Your task to perform on an android device: Go to ESPN.com Image 0: 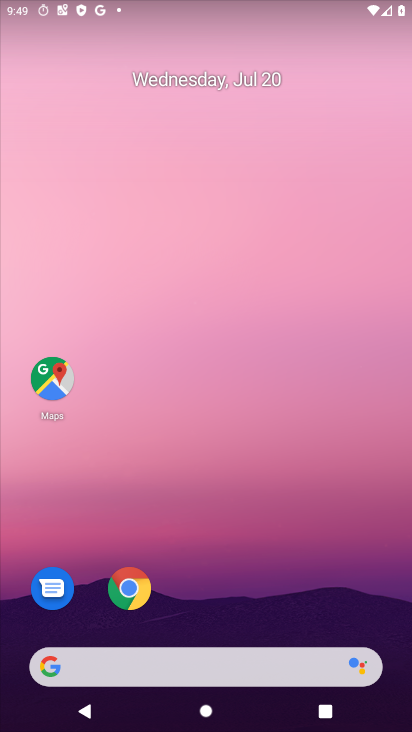
Step 0: drag from (334, 663) to (297, 51)
Your task to perform on an android device: Go to ESPN.com Image 1: 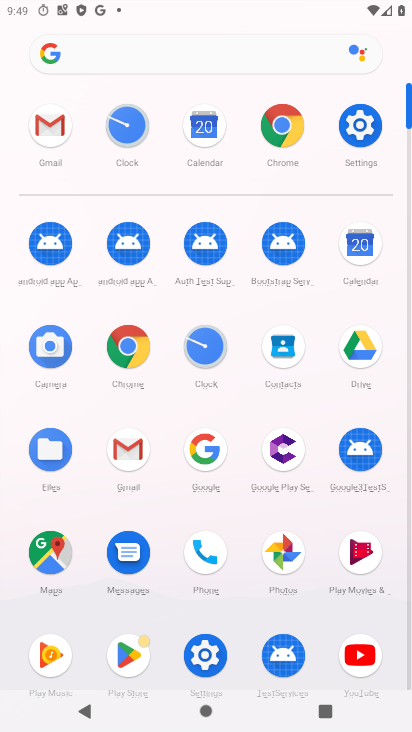
Step 1: click (141, 347)
Your task to perform on an android device: Go to ESPN.com Image 2: 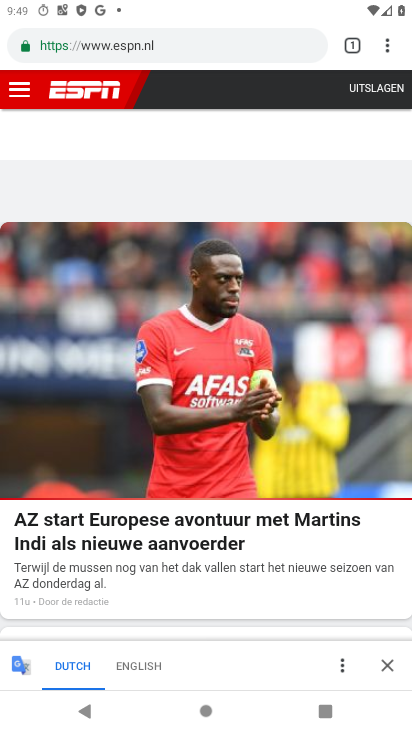
Step 2: task complete